Your task to perform on an android device: What's on my calendar today? Image 0: 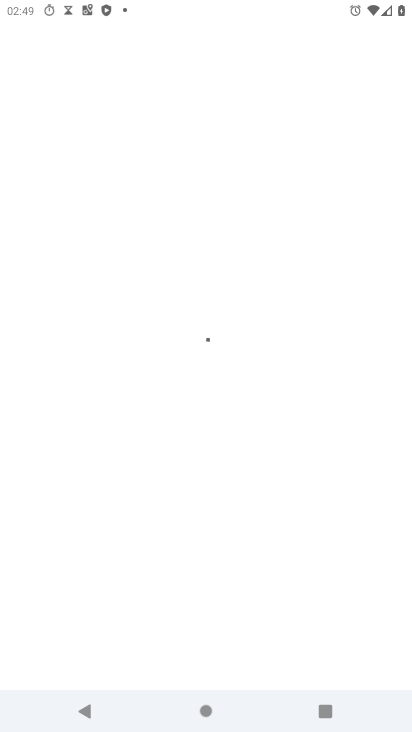
Step 0: press home button
Your task to perform on an android device: What's on my calendar today? Image 1: 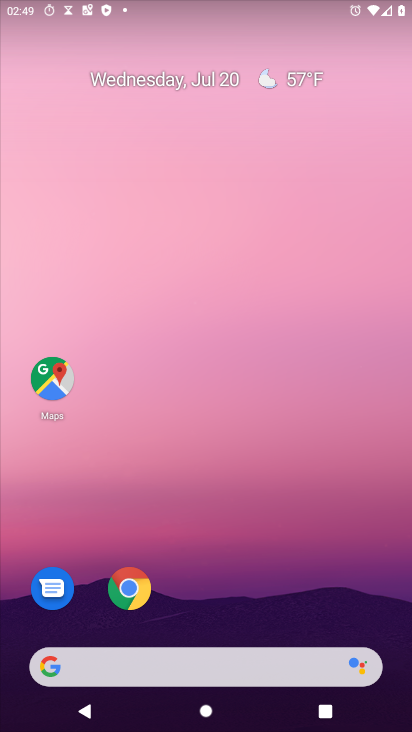
Step 1: drag from (234, 669) to (216, 17)
Your task to perform on an android device: What's on my calendar today? Image 2: 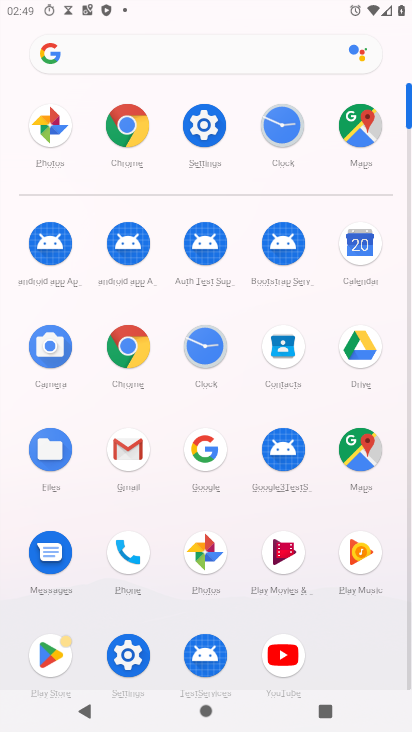
Step 2: click (356, 251)
Your task to perform on an android device: What's on my calendar today? Image 3: 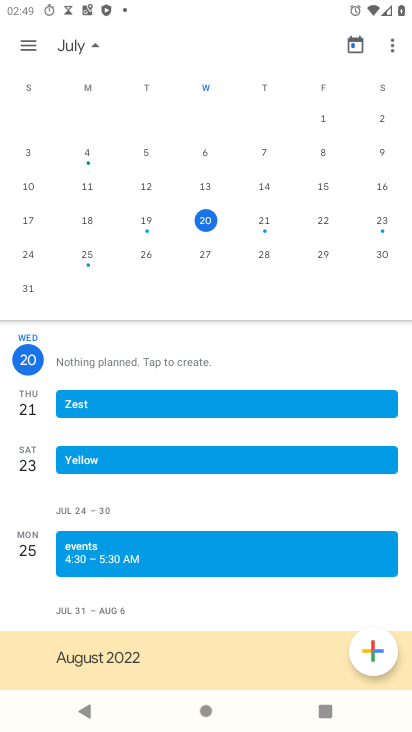
Step 3: click (203, 217)
Your task to perform on an android device: What's on my calendar today? Image 4: 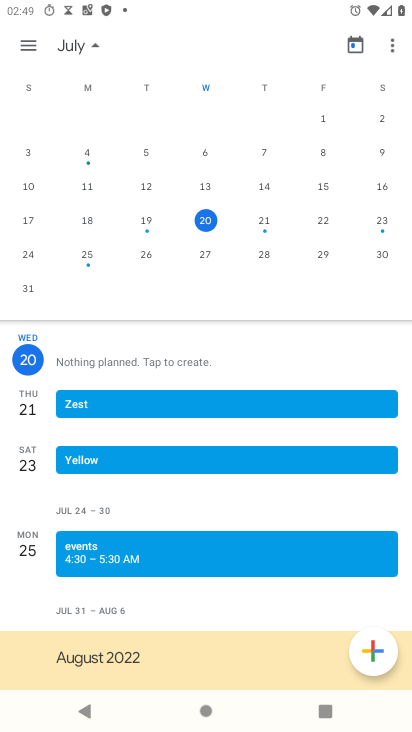
Step 4: click (203, 217)
Your task to perform on an android device: What's on my calendar today? Image 5: 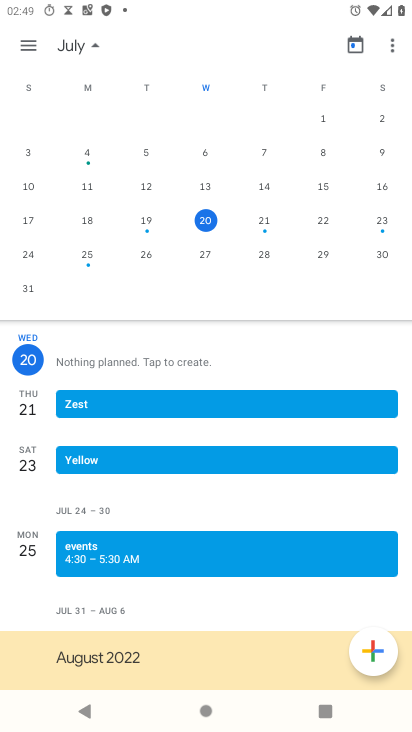
Step 5: task complete